Your task to perform on an android device: change timer sound Image 0: 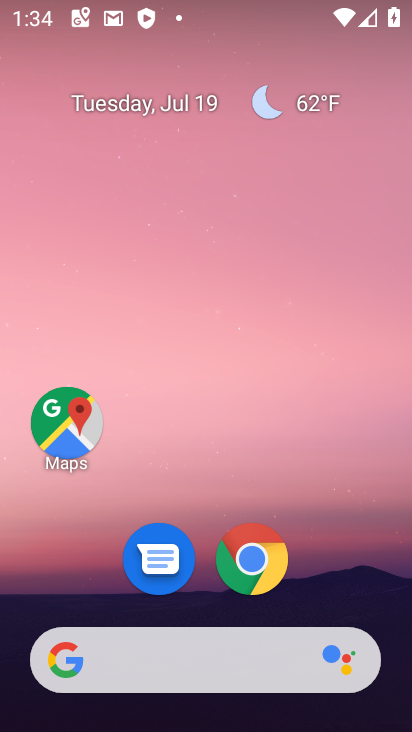
Step 0: drag from (276, 541) to (353, 123)
Your task to perform on an android device: change timer sound Image 1: 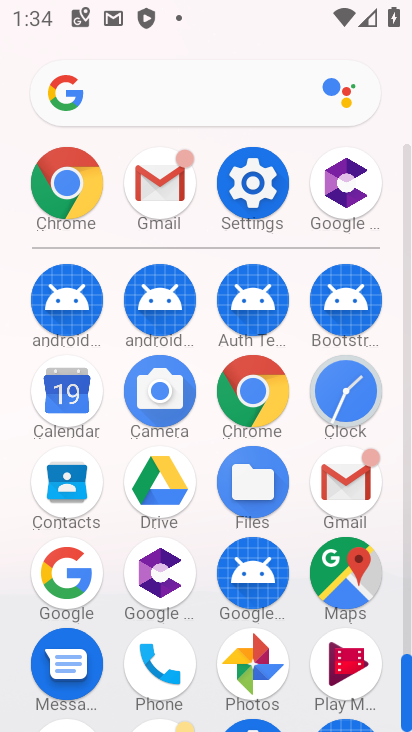
Step 1: drag from (209, 537) to (263, 162)
Your task to perform on an android device: change timer sound Image 2: 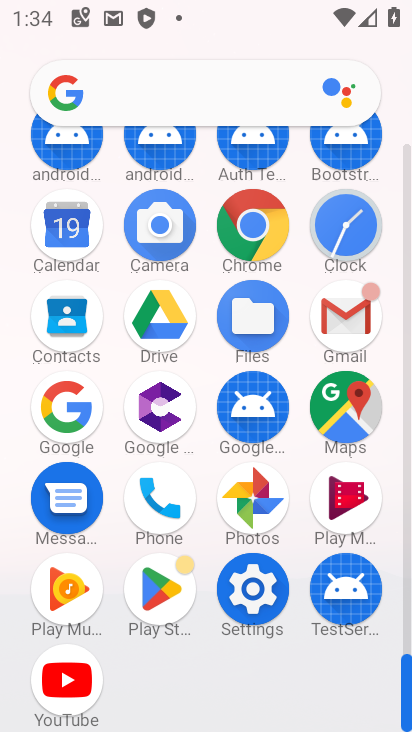
Step 2: click (344, 237)
Your task to perform on an android device: change timer sound Image 3: 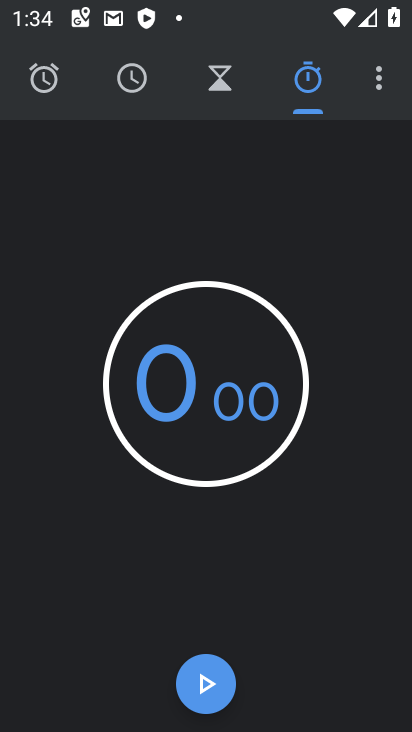
Step 3: click (216, 82)
Your task to perform on an android device: change timer sound Image 4: 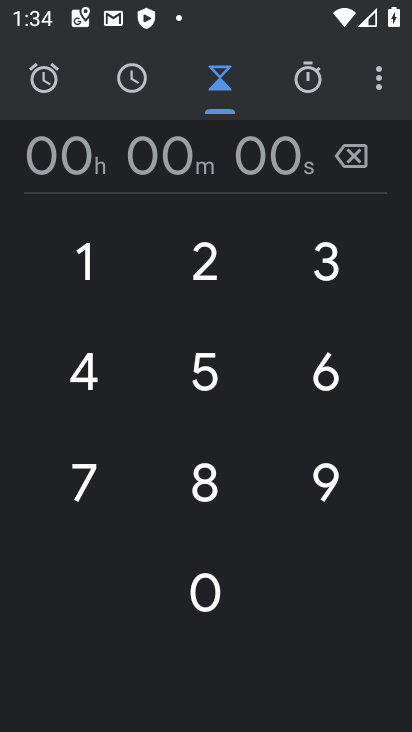
Step 4: click (207, 276)
Your task to perform on an android device: change timer sound Image 5: 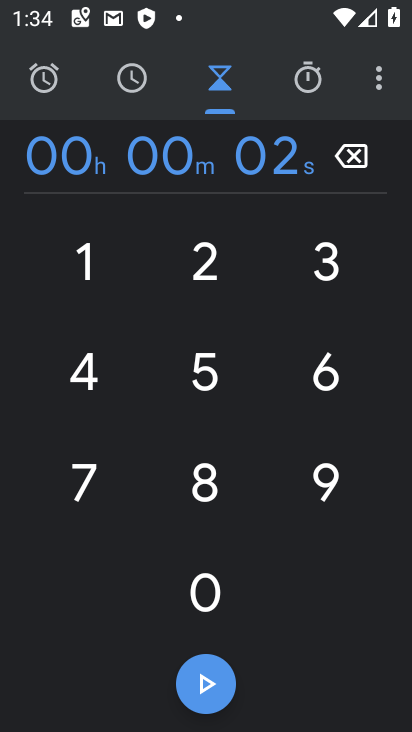
Step 5: click (216, 687)
Your task to perform on an android device: change timer sound Image 6: 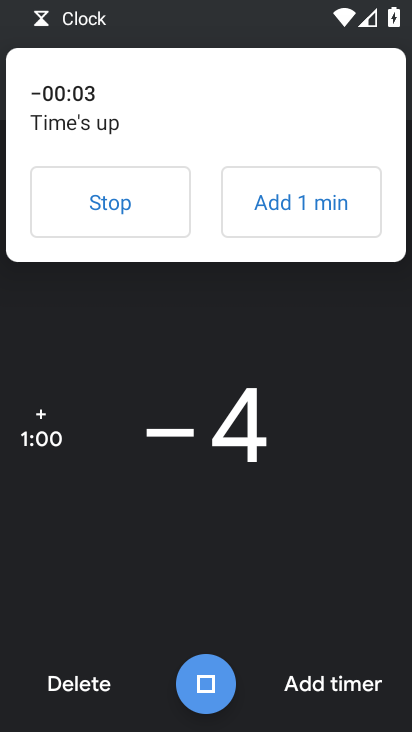
Step 6: task complete